Your task to perform on an android device: Play the last video I watched on Youtube Image 0: 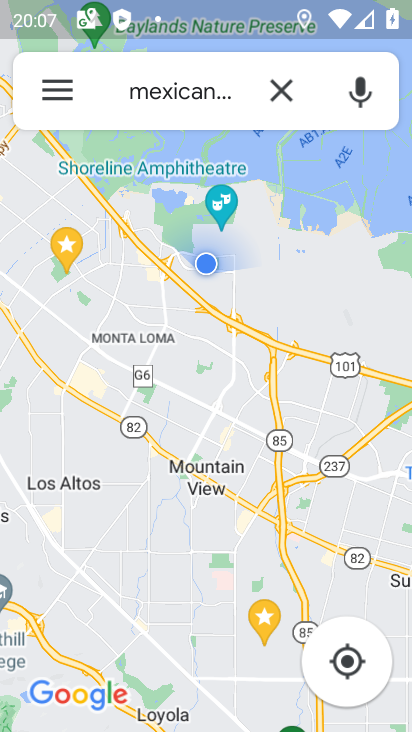
Step 0: drag from (203, 580) to (210, 542)
Your task to perform on an android device: Play the last video I watched on Youtube Image 1: 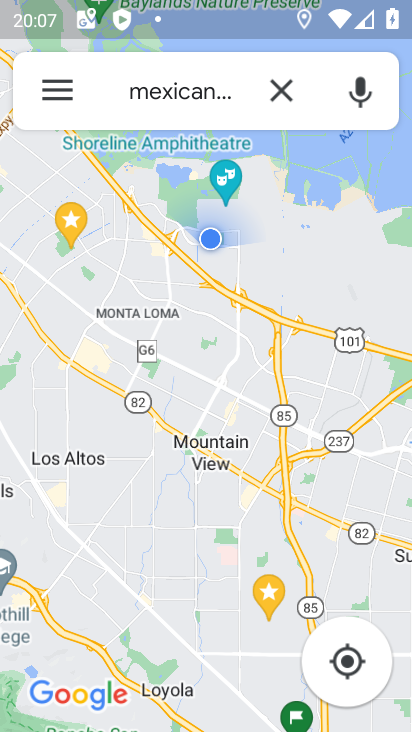
Step 1: press home button
Your task to perform on an android device: Play the last video I watched on Youtube Image 2: 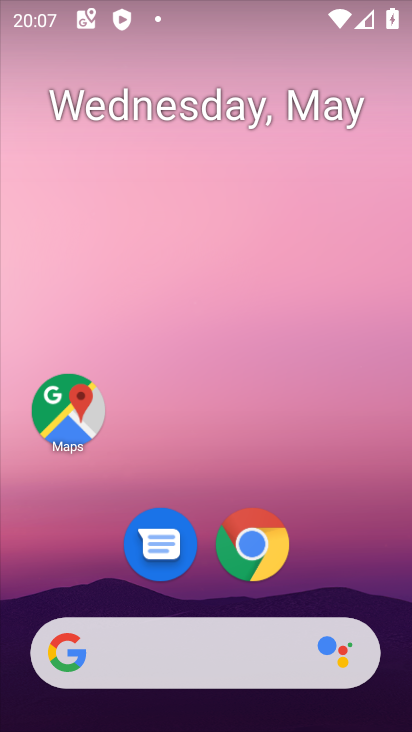
Step 2: drag from (193, 593) to (260, 193)
Your task to perform on an android device: Play the last video I watched on Youtube Image 3: 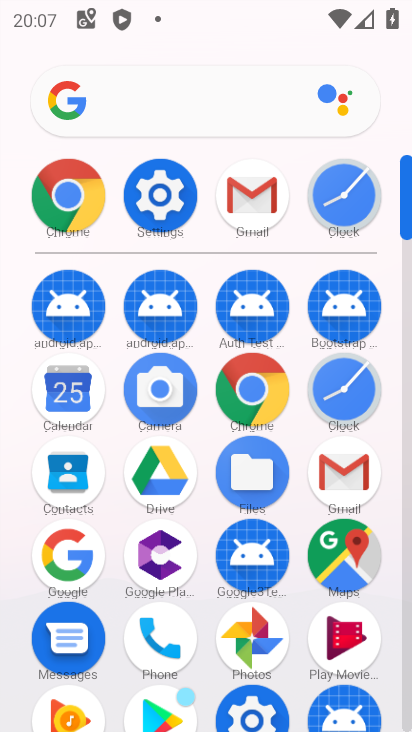
Step 3: drag from (206, 601) to (204, 251)
Your task to perform on an android device: Play the last video I watched on Youtube Image 4: 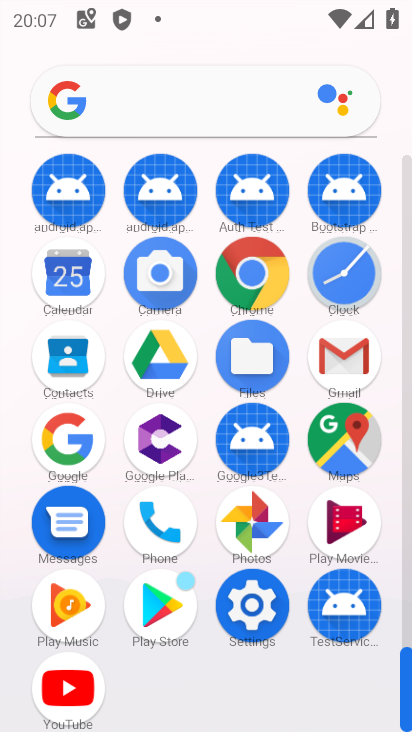
Step 4: click (63, 708)
Your task to perform on an android device: Play the last video I watched on Youtube Image 5: 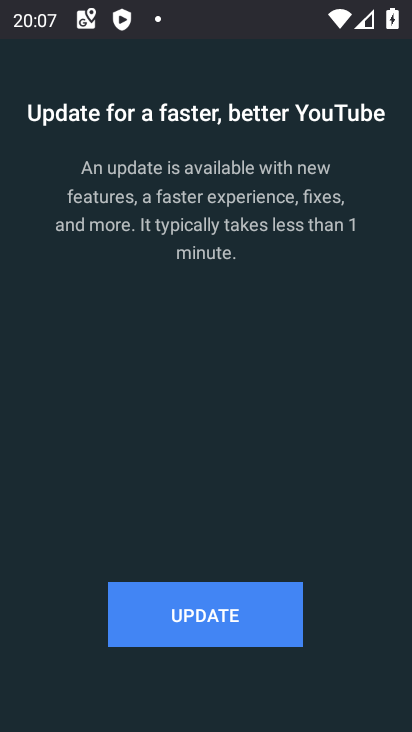
Step 5: click (262, 619)
Your task to perform on an android device: Play the last video I watched on Youtube Image 6: 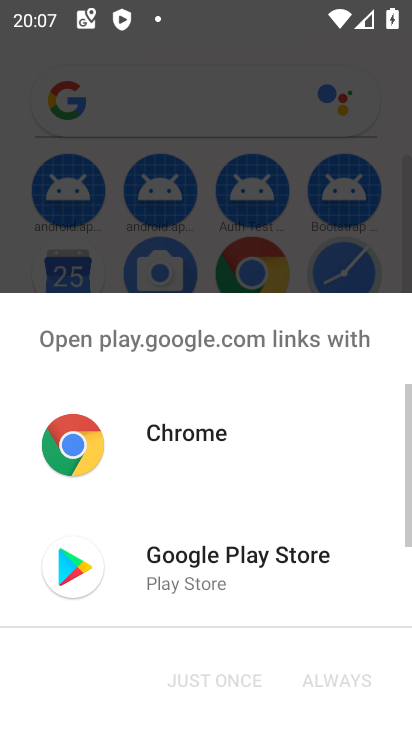
Step 6: click (220, 580)
Your task to perform on an android device: Play the last video I watched on Youtube Image 7: 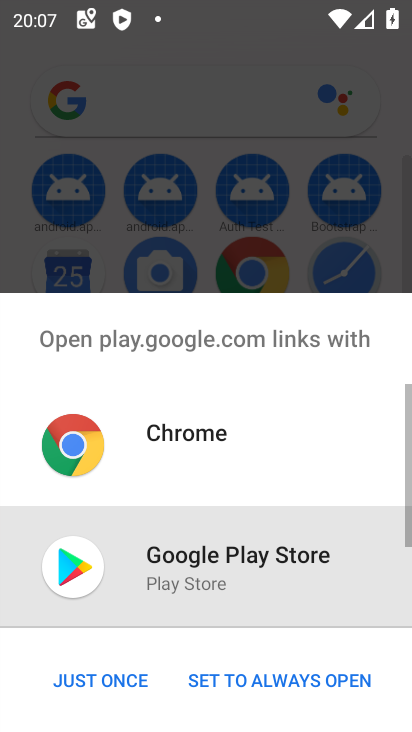
Step 7: click (201, 669)
Your task to perform on an android device: Play the last video I watched on Youtube Image 8: 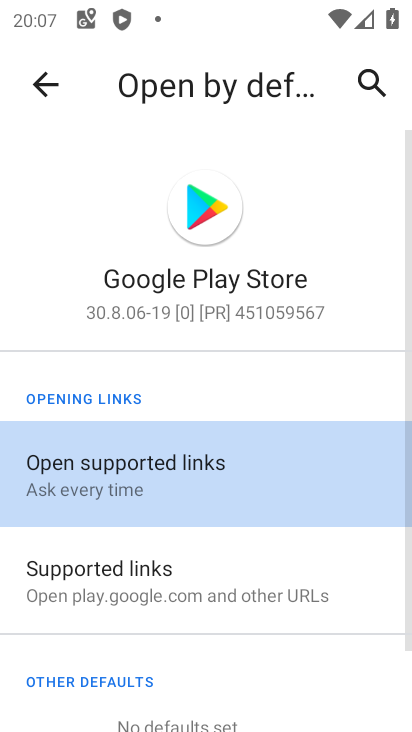
Step 8: press back button
Your task to perform on an android device: Play the last video I watched on Youtube Image 9: 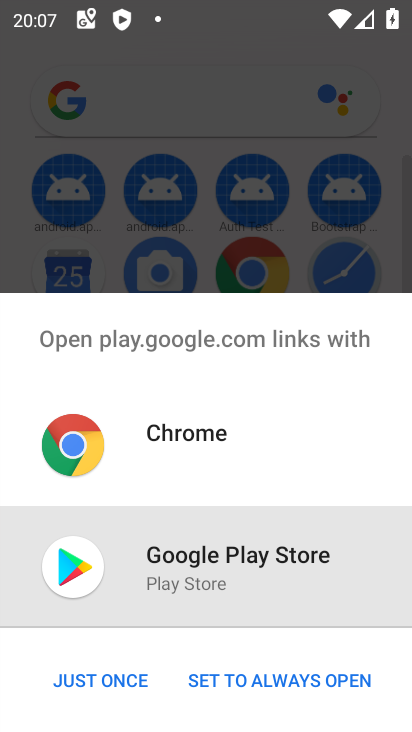
Step 9: click (105, 684)
Your task to perform on an android device: Play the last video I watched on Youtube Image 10: 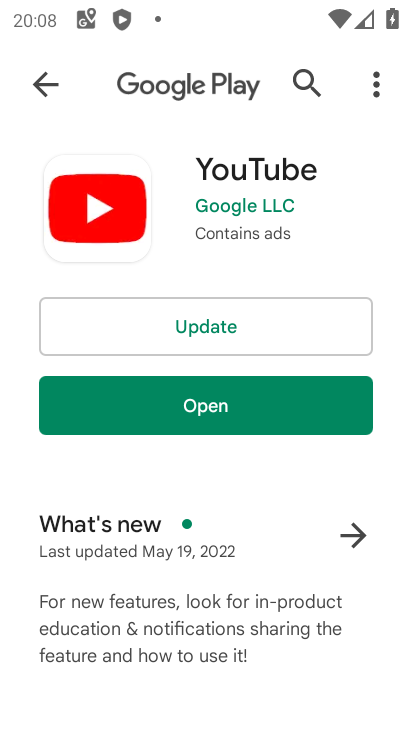
Step 10: click (202, 343)
Your task to perform on an android device: Play the last video I watched on Youtube Image 11: 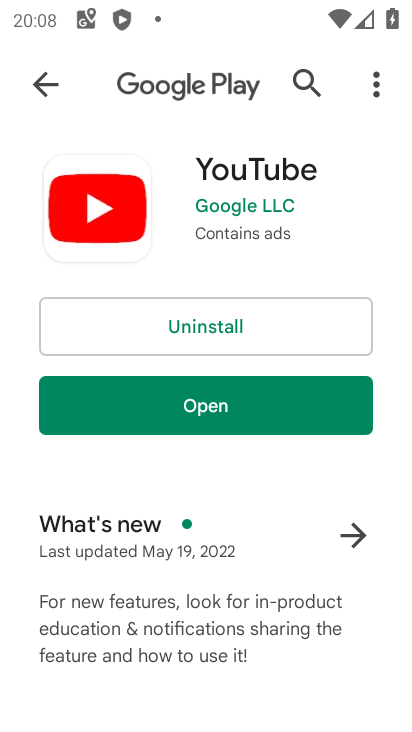
Step 11: click (239, 424)
Your task to perform on an android device: Play the last video I watched on Youtube Image 12: 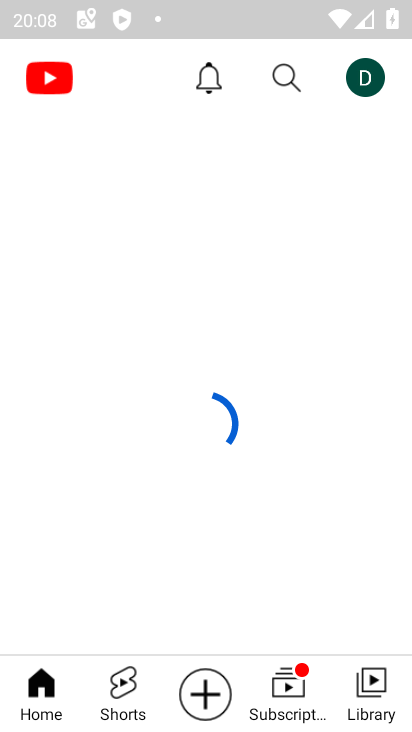
Step 12: click (360, 684)
Your task to perform on an android device: Play the last video I watched on Youtube Image 13: 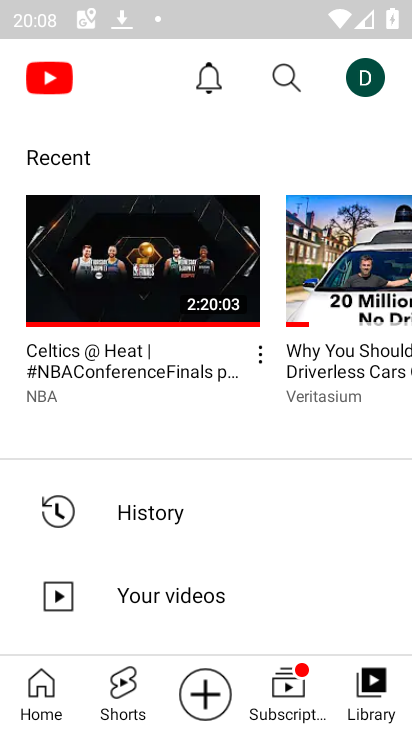
Step 13: click (151, 244)
Your task to perform on an android device: Play the last video I watched on Youtube Image 14: 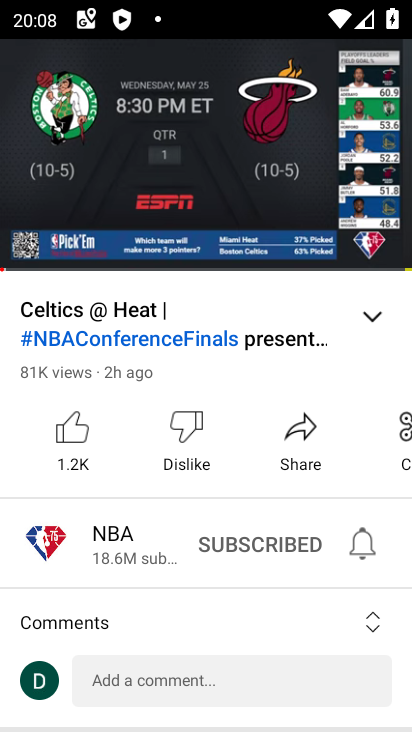
Step 14: task complete